Your task to perform on an android device: star an email in the gmail app Image 0: 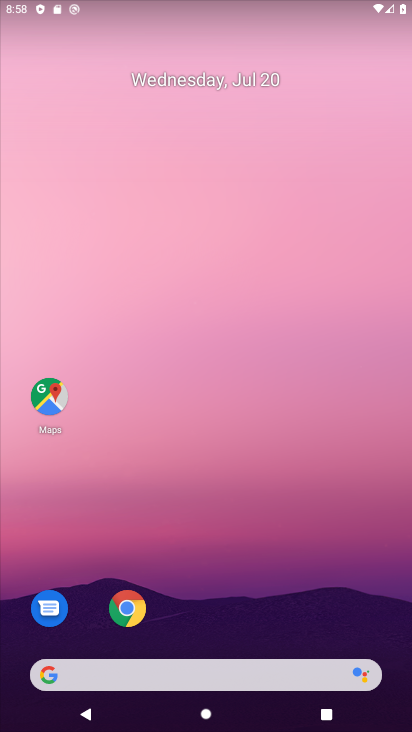
Step 0: drag from (317, 644) to (273, 119)
Your task to perform on an android device: star an email in the gmail app Image 1: 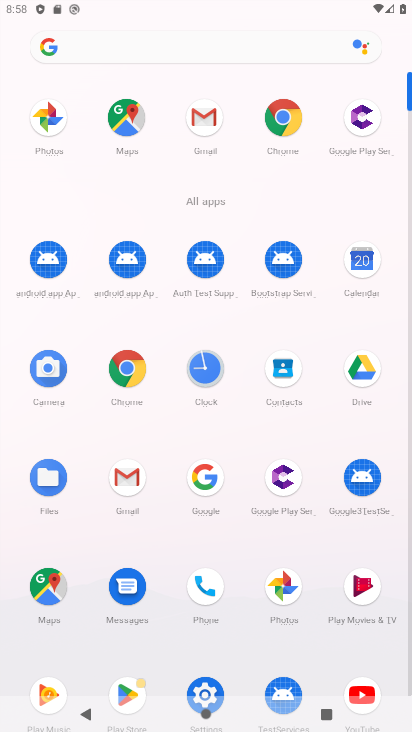
Step 1: click (202, 123)
Your task to perform on an android device: star an email in the gmail app Image 2: 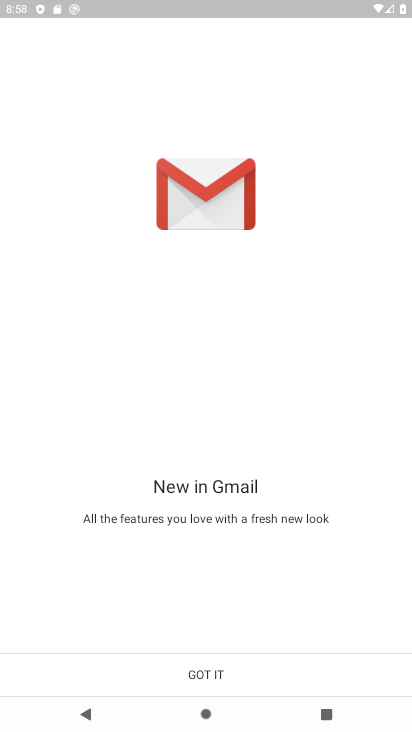
Step 2: click (218, 674)
Your task to perform on an android device: star an email in the gmail app Image 3: 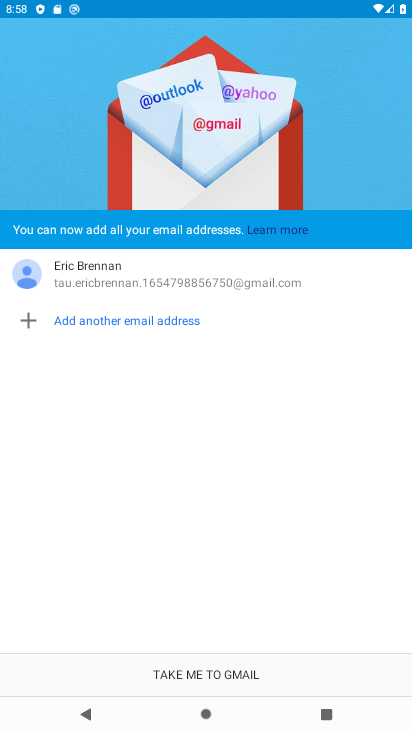
Step 3: click (218, 674)
Your task to perform on an android device: star an email in the gmail app Image 4: 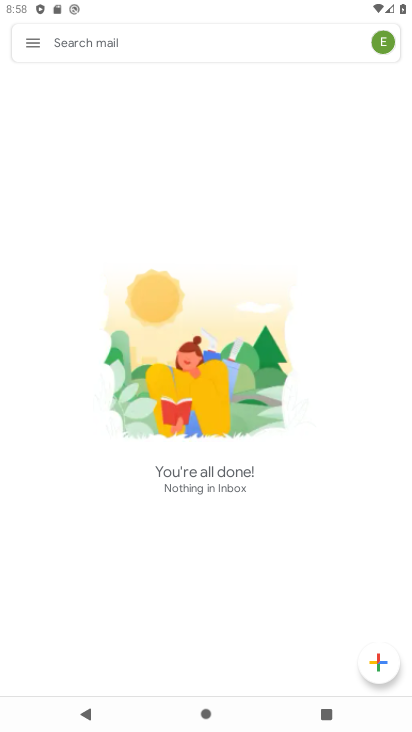
Step 4: click (32, 35)
Your task to perform on an android device: star an email in the gmail app Image 5: 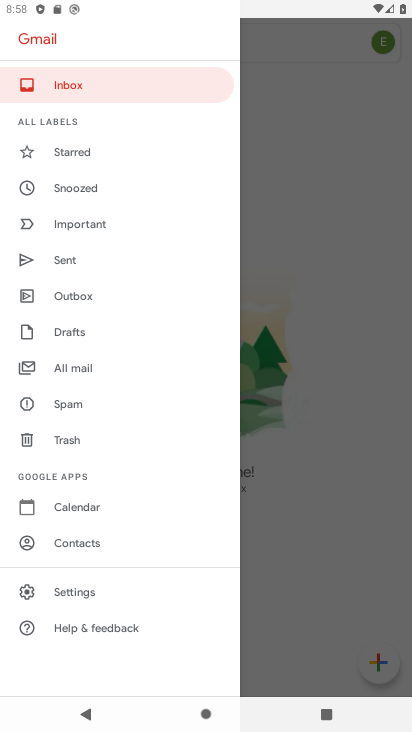
Step 5: click (24, 48)
Your task to perform on an android device: star an email in the gmail app Image 6: 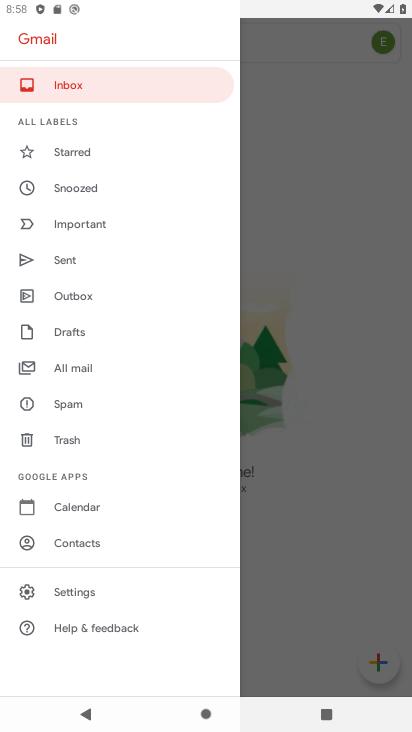
Step 6: click (68, 82)
Your task to perform on an android device: star an email in the gmail app Image 7: 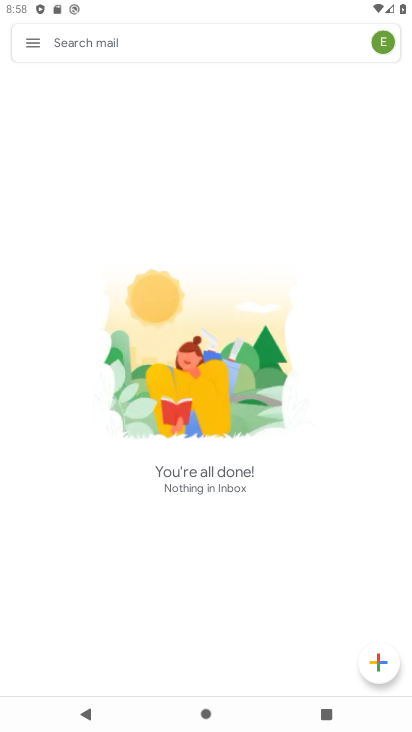
Step 7: task complete